Your task to perform on an android device: change the upload size in google photos Image 0: 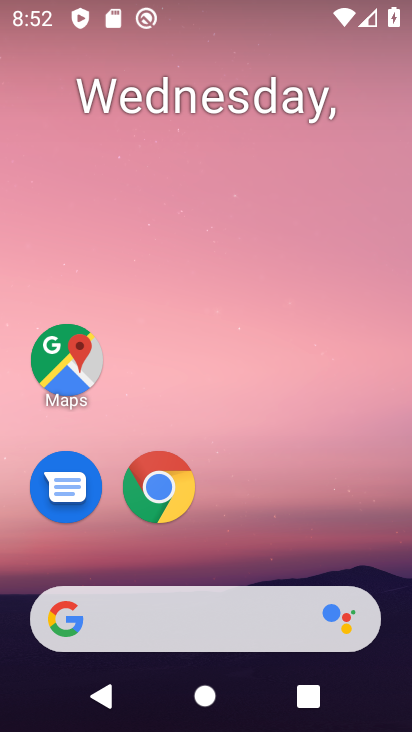
Step 0: drag from (252, 574) to (343, 7)
Your task to perform on an android device: change the upload size in google photos Image 1: 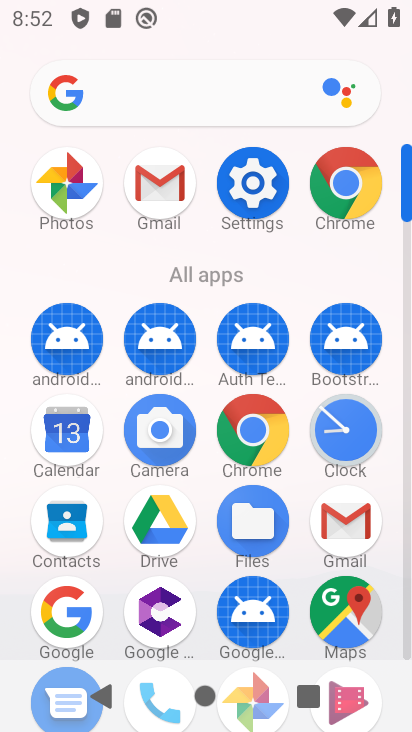
Step 1: drag from (213, 597) to (267, 236)
Your task to perform on an android device: change the upload size in google photos Image 2: 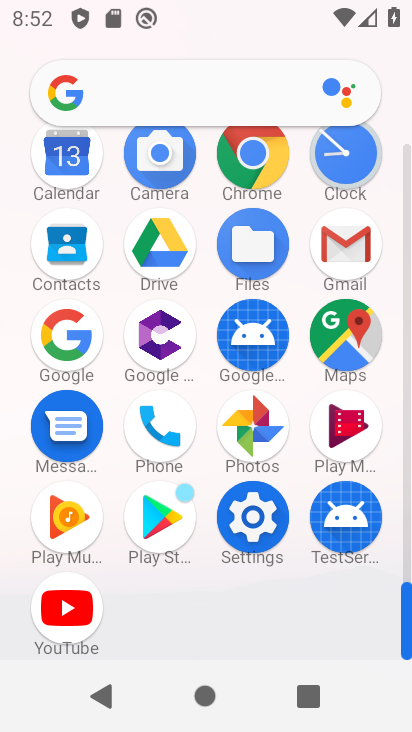
Step 2: click (260, 433)
Your task to perform on an android device: change the upload size in google photos Image 3: 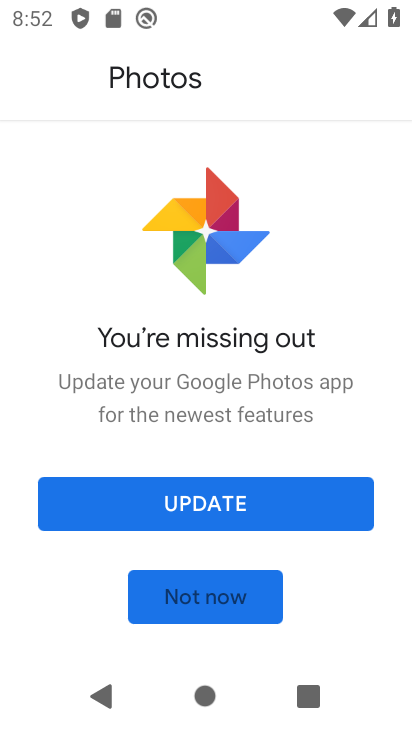
Step 3: click (207, 595)
Your task to perform on an android device: change the upload size in google photos Image 4: 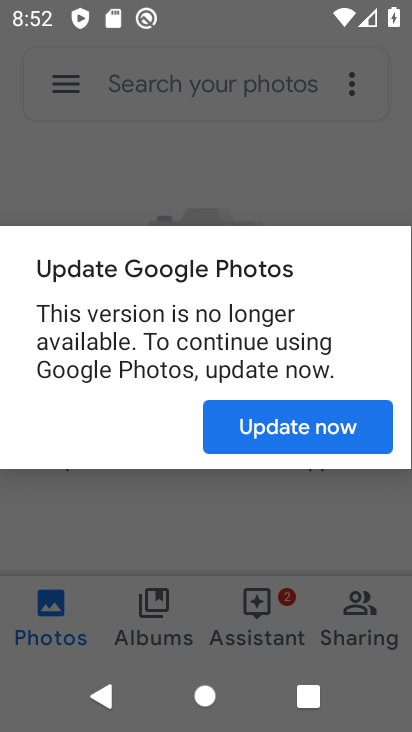
Step 4: click (321, 444)
Your task to perform on an android device: change the upload size in google photos Image 5: 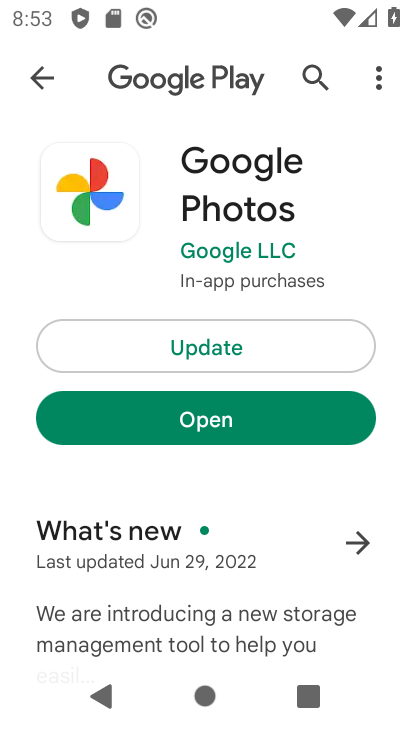
Step 5: click (190, 440)
Your task to perform on an android device: change the upload size in google photos Image 6: 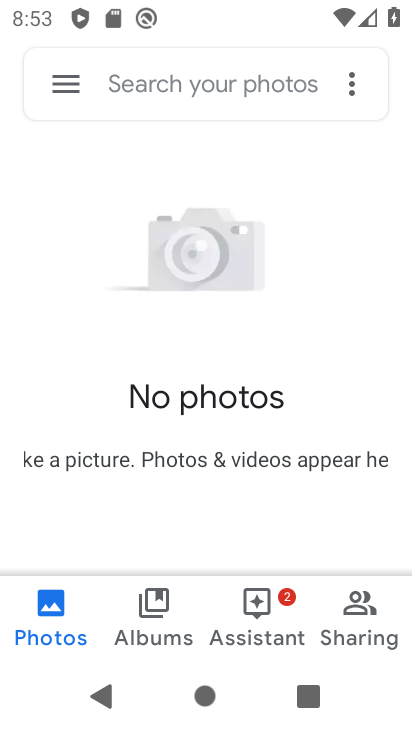
Step 6: click (68, 78)
Your task to perform on an android device: change the upload size in google photos Image 7: 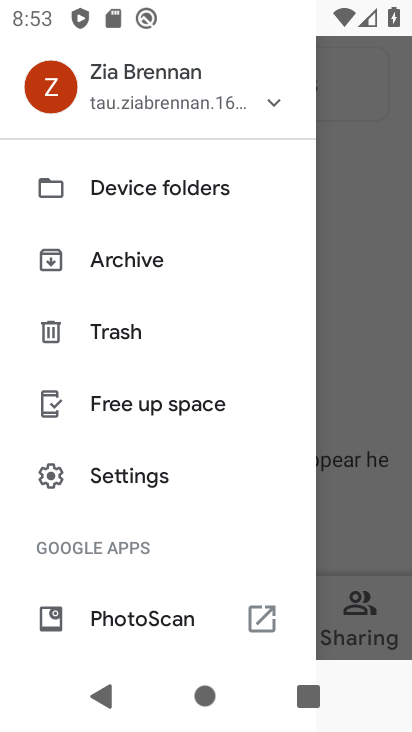
Step 7: click (144, 476)
Your task to perform on an android device: change the upload size in google photos Image 8: 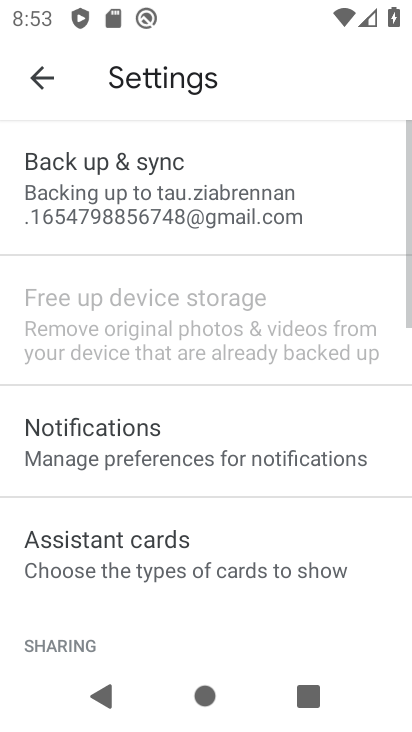
Step 8: click (156, 178)
Your task to perform on an android device: change the upload size in google photos Image 9: 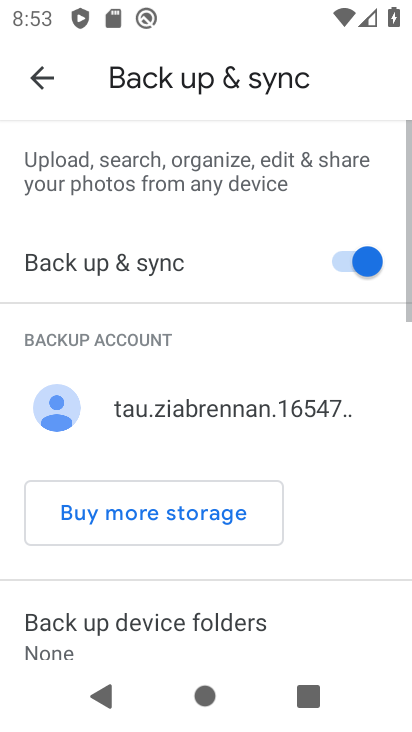
Step 9: drag from (168, 591) to (239, 68)
Your task to perform on an android device: change the upload size in google photos Image 10: 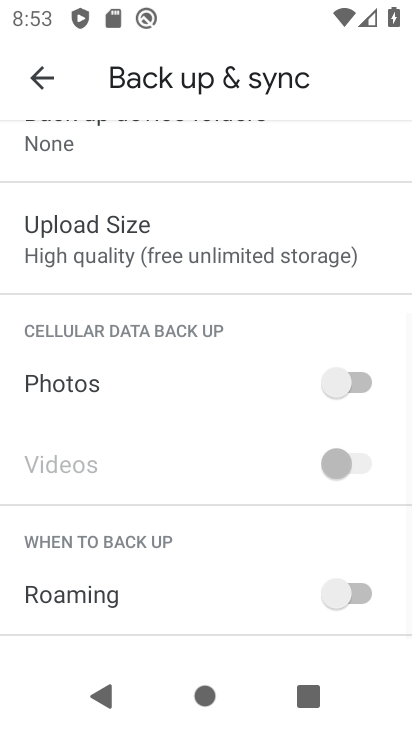
Step 10: click (85, 269)
Your task to perform on an android device: change the upload size in google photos Image 11: 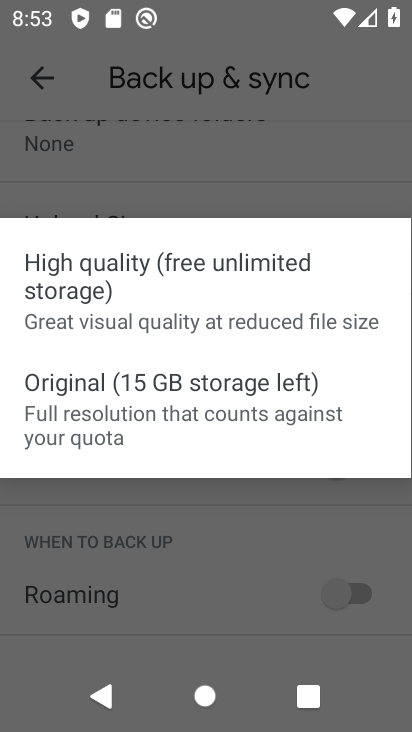
Step 11: click (104, 398)
Your task to perform on an android device: change the upload size in google photos Image 12: 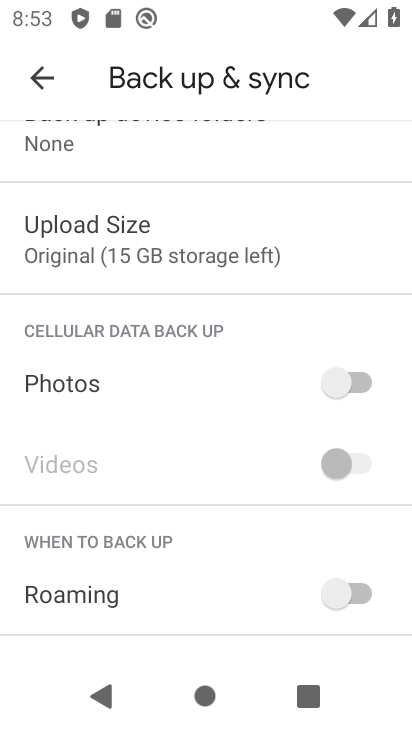
Step 12: task complete